Your task to perform on an android device: Go to notification settings Image 0: 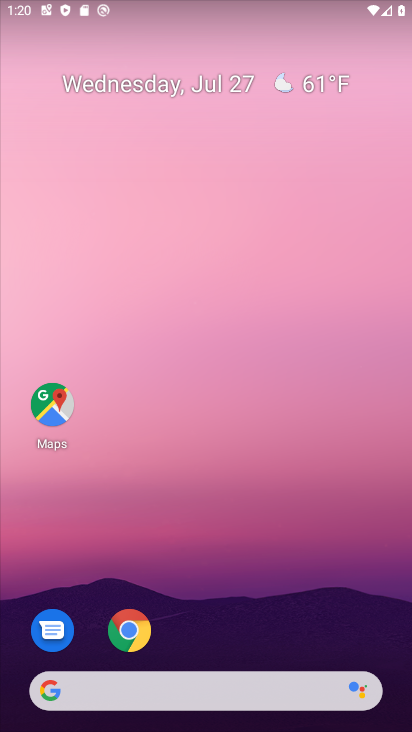
Step 0: drag from (189, 634) to (266, 170)
Your task to perform on an android device: Go to notification settings Image 1: 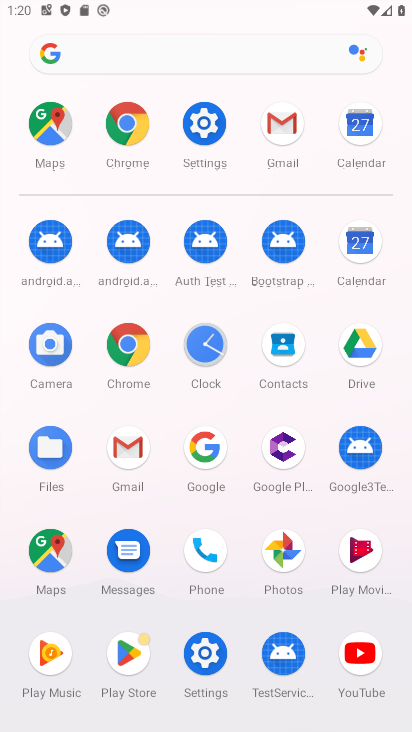
Step 1: click (209, 124)
Your task to perform on an android device: Go to notification settings Image 2: 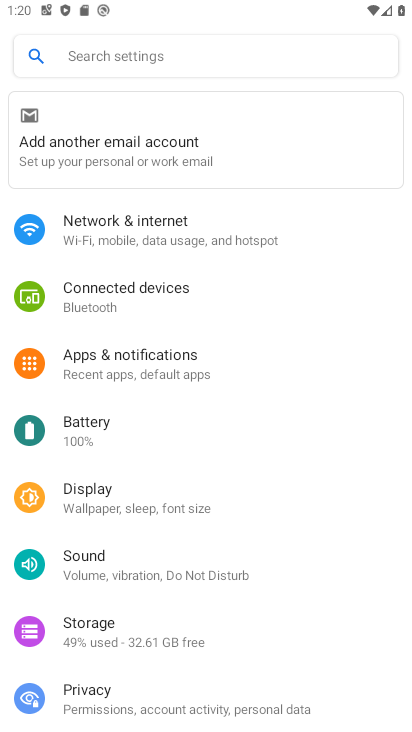
Step 2: click (141, 356)
Your task to perform on an android device: Go to notification settings Image 3: 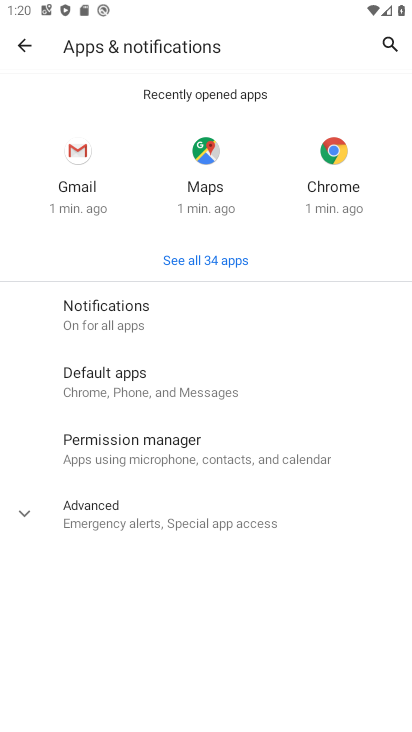
Step 3: click (115, 508)
Your task to perform on an android device: Go to notification settings Image 4: 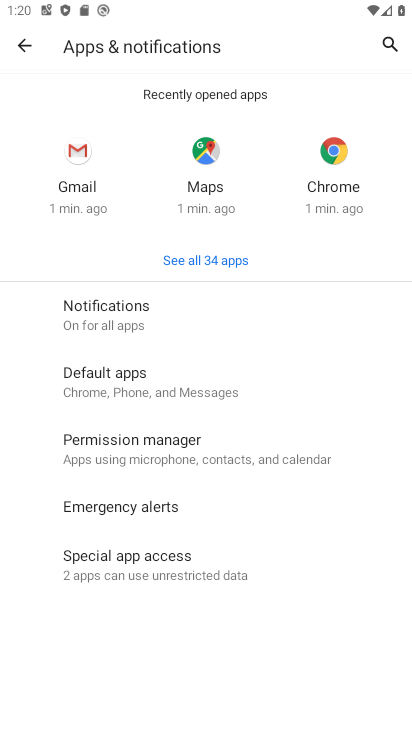
Step 4: task complete